Your task to perform on an android device: open app "Move to iOS" Image 0: 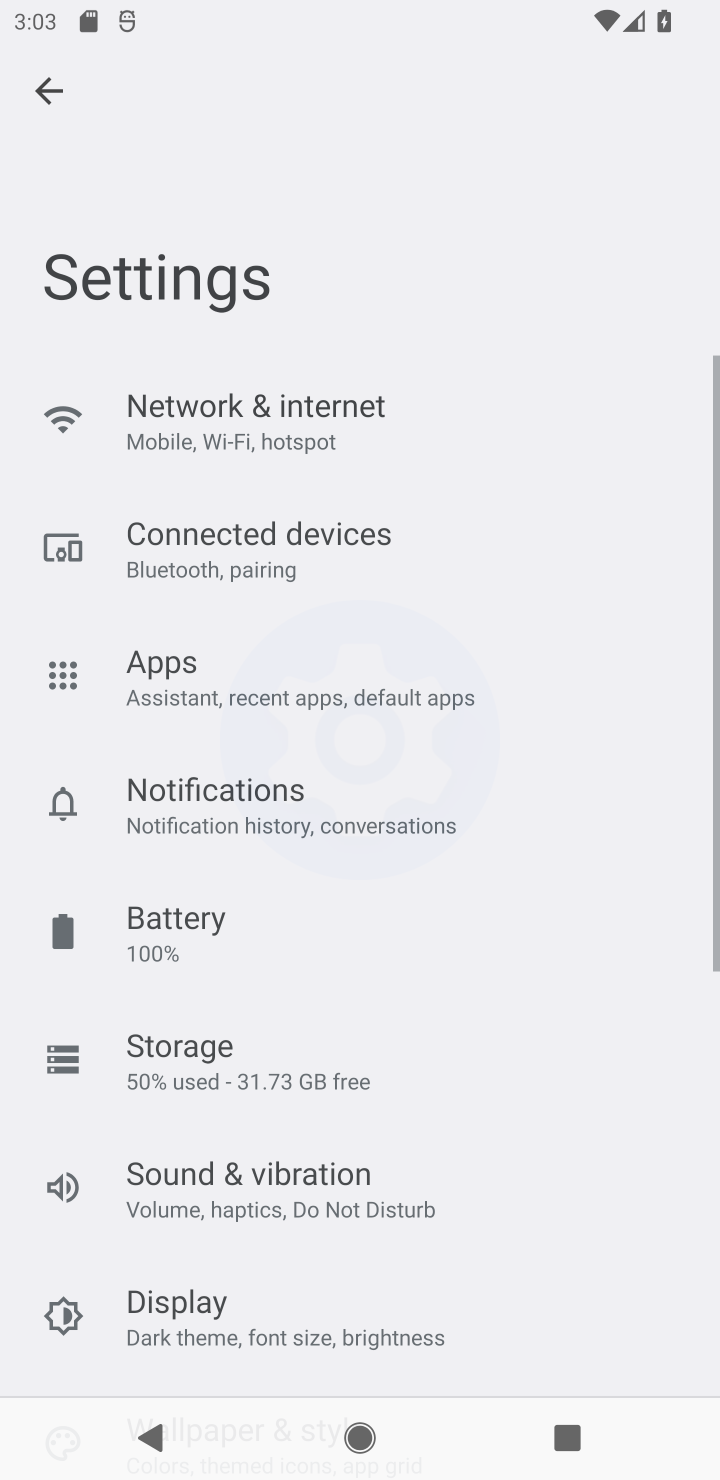
Step 0: press home button
Your task to perform on an android device: open app "Move to iOS" Image 1: 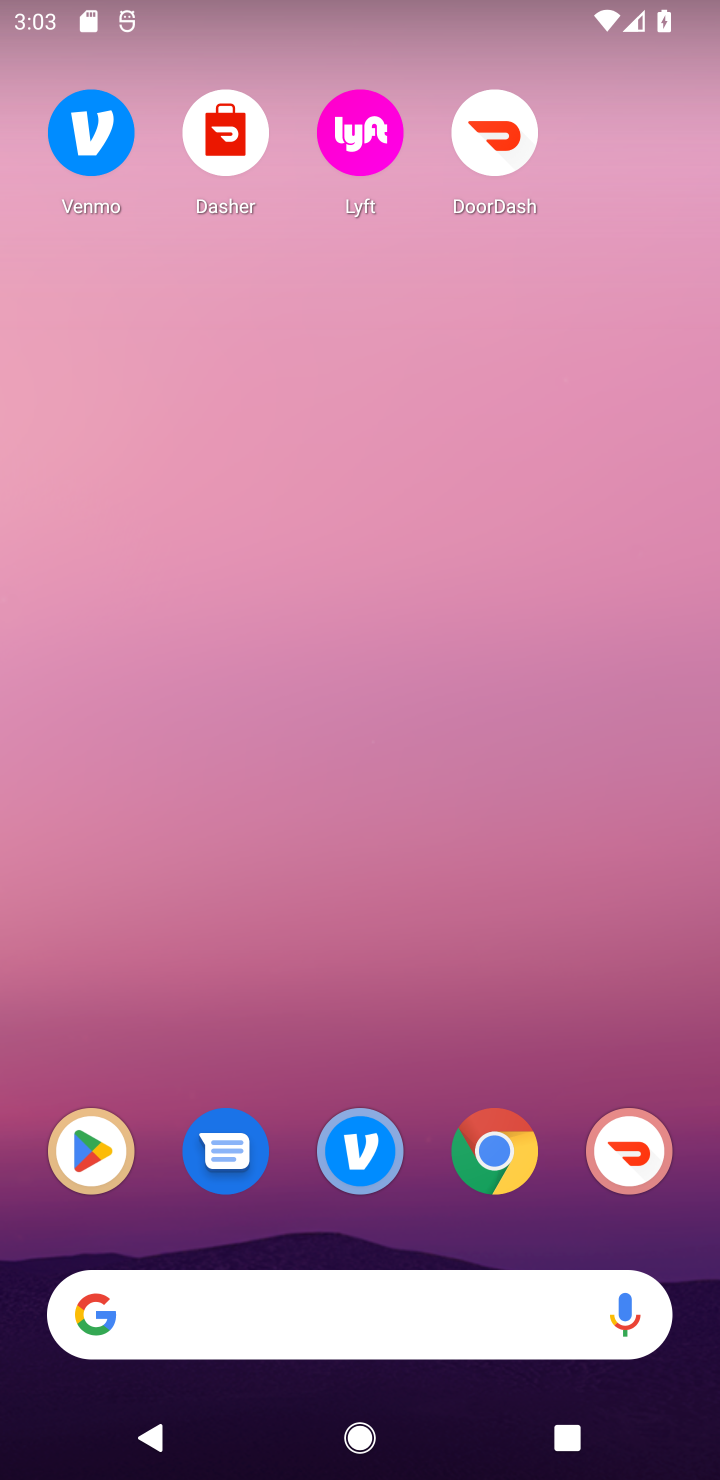
Step 1: drag from (393, 1222) to (393, 263)
Your task to perform on an android device: open app "Move to iOS" Image 2: 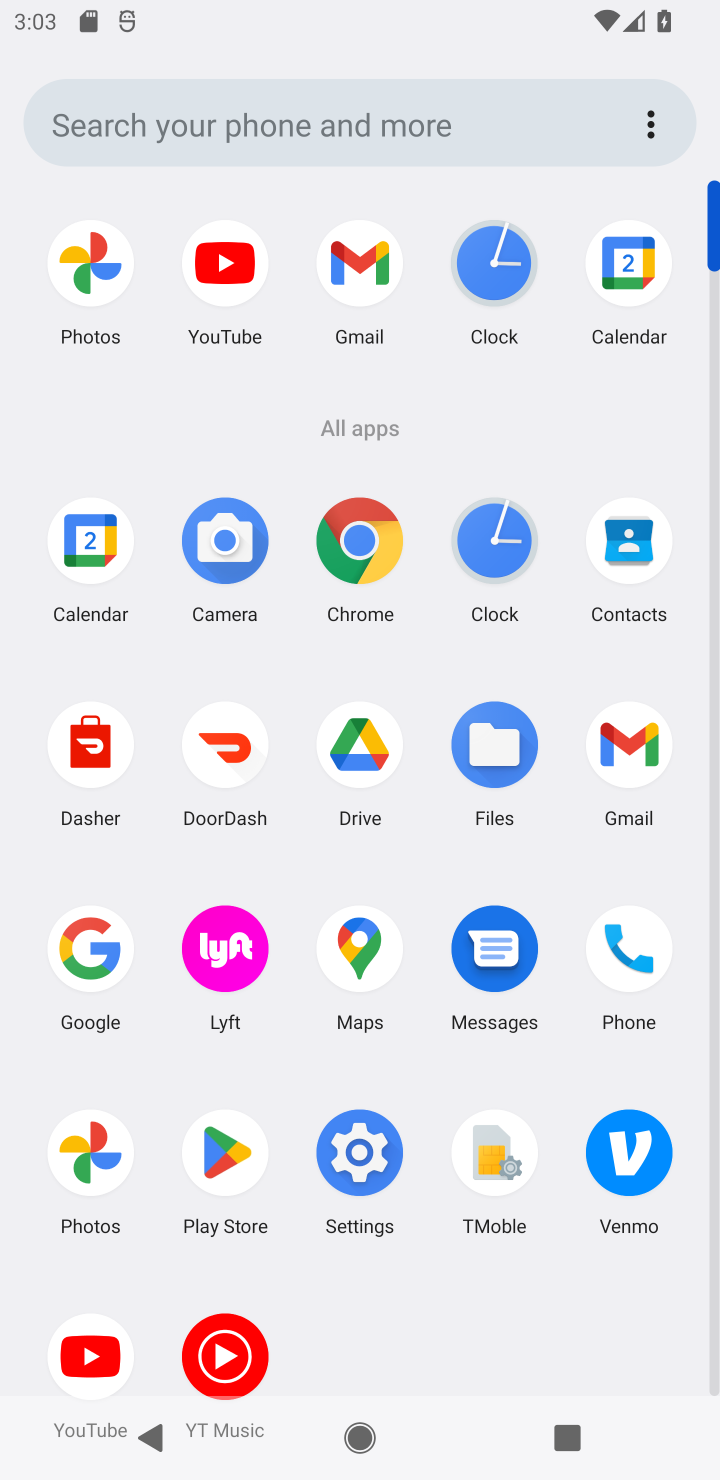
Step 2: click (205, 1173)
Your task to perform on an android device: open app "Move to iOS" Image 3: 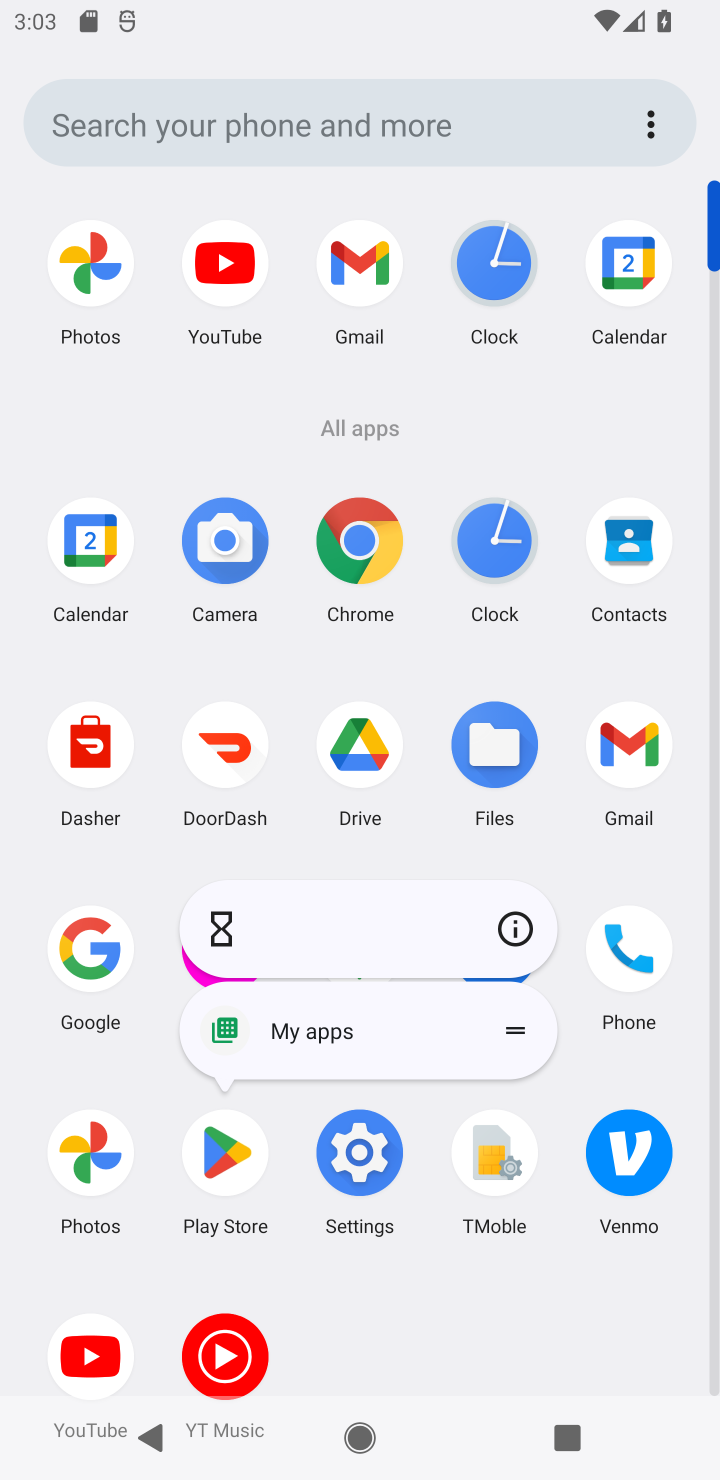
Step 3: click (223, 1188)
Your task to perform on an android device: open app "Move to iOS" Image 4: 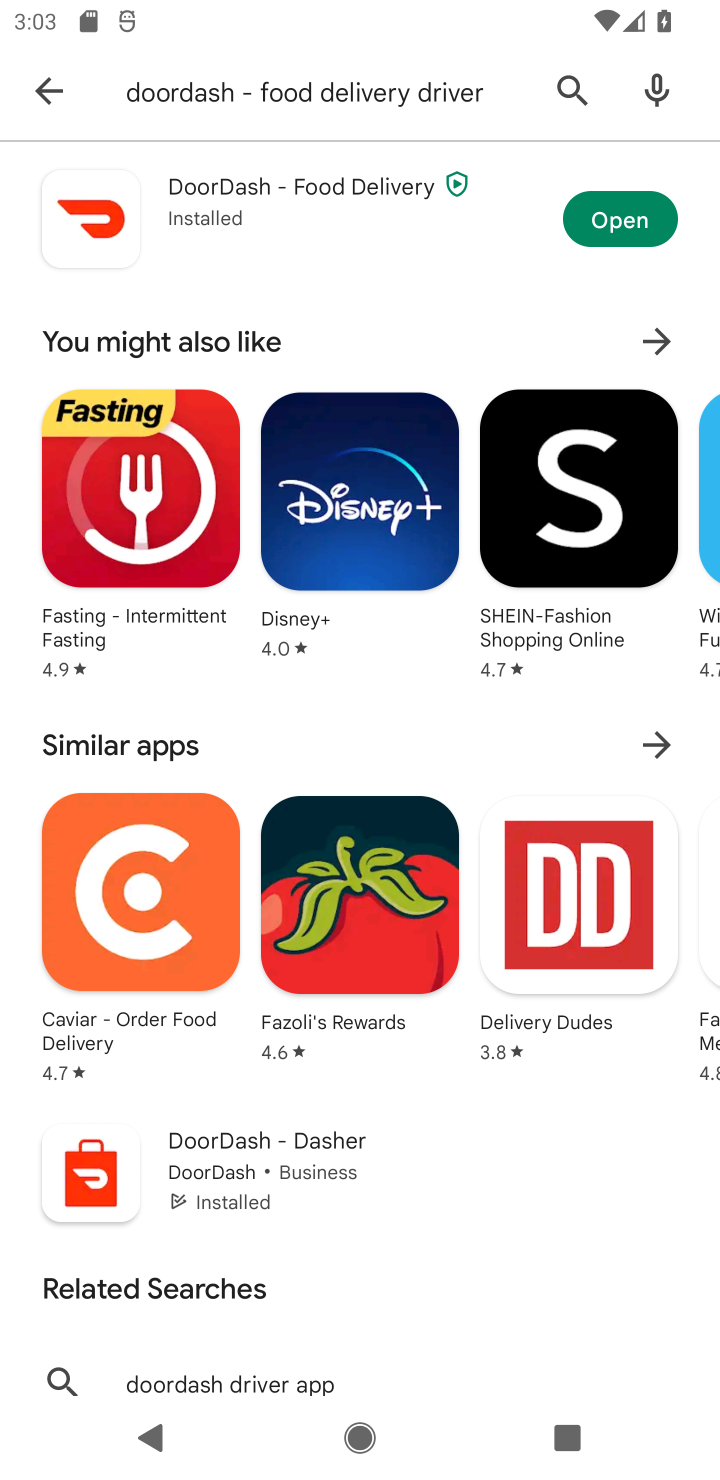
Step 4: click (34, 99)
Your task to perform on an android device: open app "Move to iOS" Image 5: 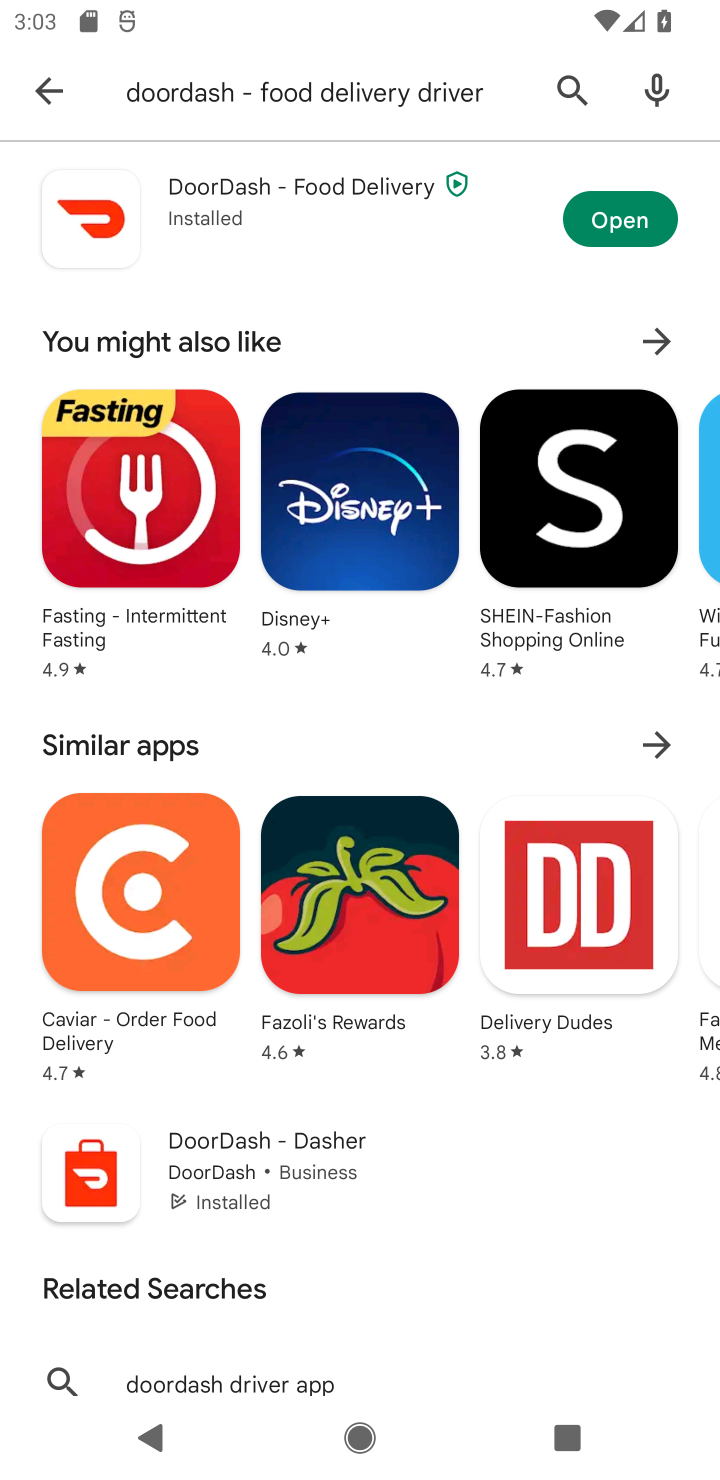
Step 5: click (54, 96)
Your task to perform on an android device: open app "Move to iOS" Image 6: 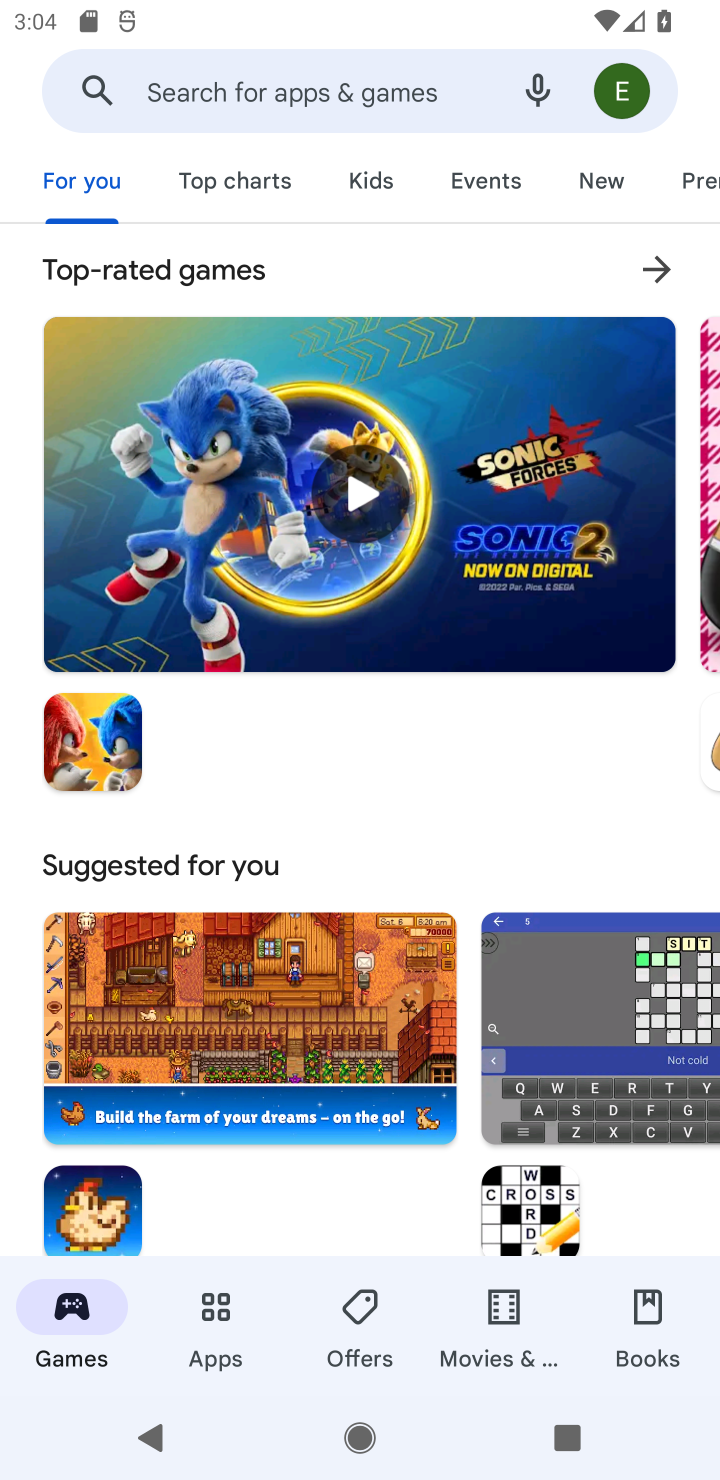
Step 6: click (258, 91)
Your task to perform on an android device: open app "Move to iOS" Image 7: 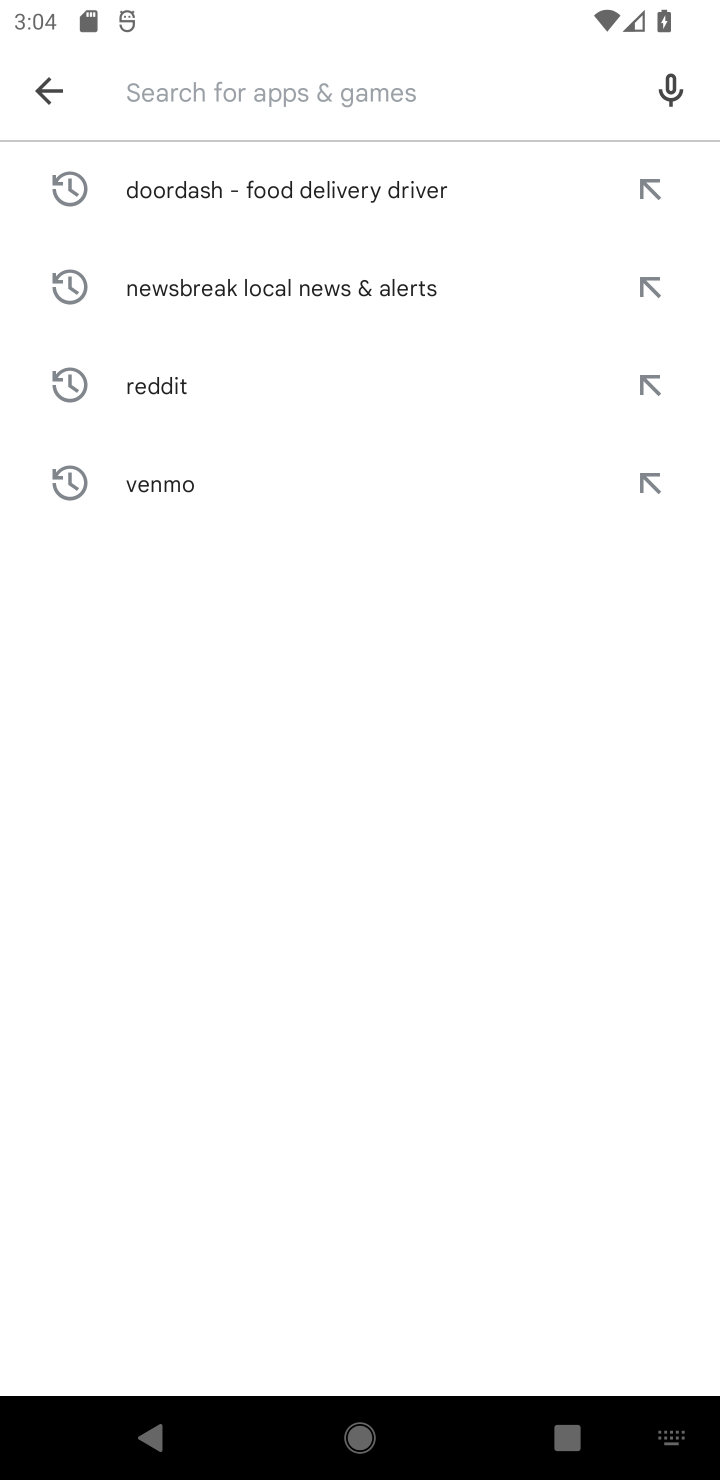
Step 7: click (225, 78)
Your task to perform on an android device: open app "Move to iOS" Image 8: 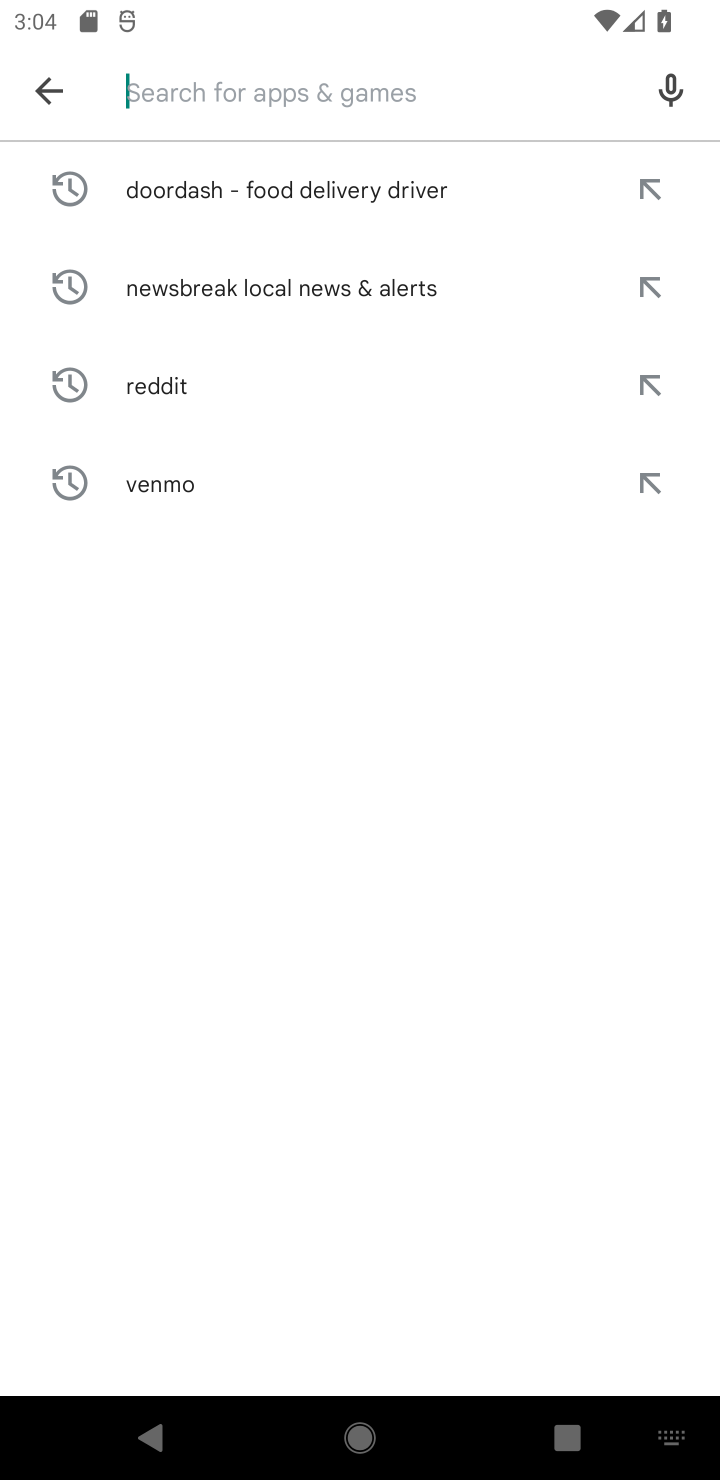
Step 8: type "Move to iOS"
Your task to perform on an android device: open app "Move to iOS" Image 9: 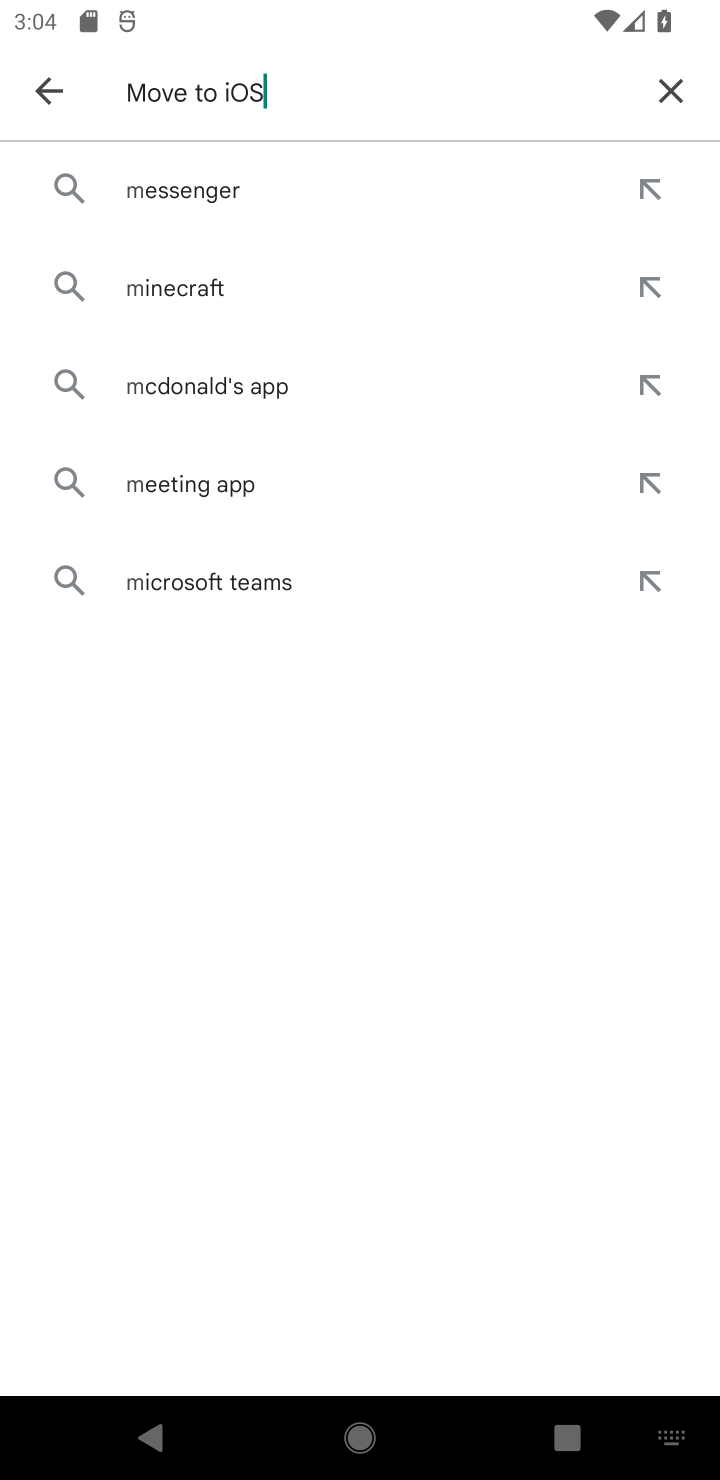
Step 9: type ""
Your task to perform on an android device: open app "Move to iOS" Image 10: 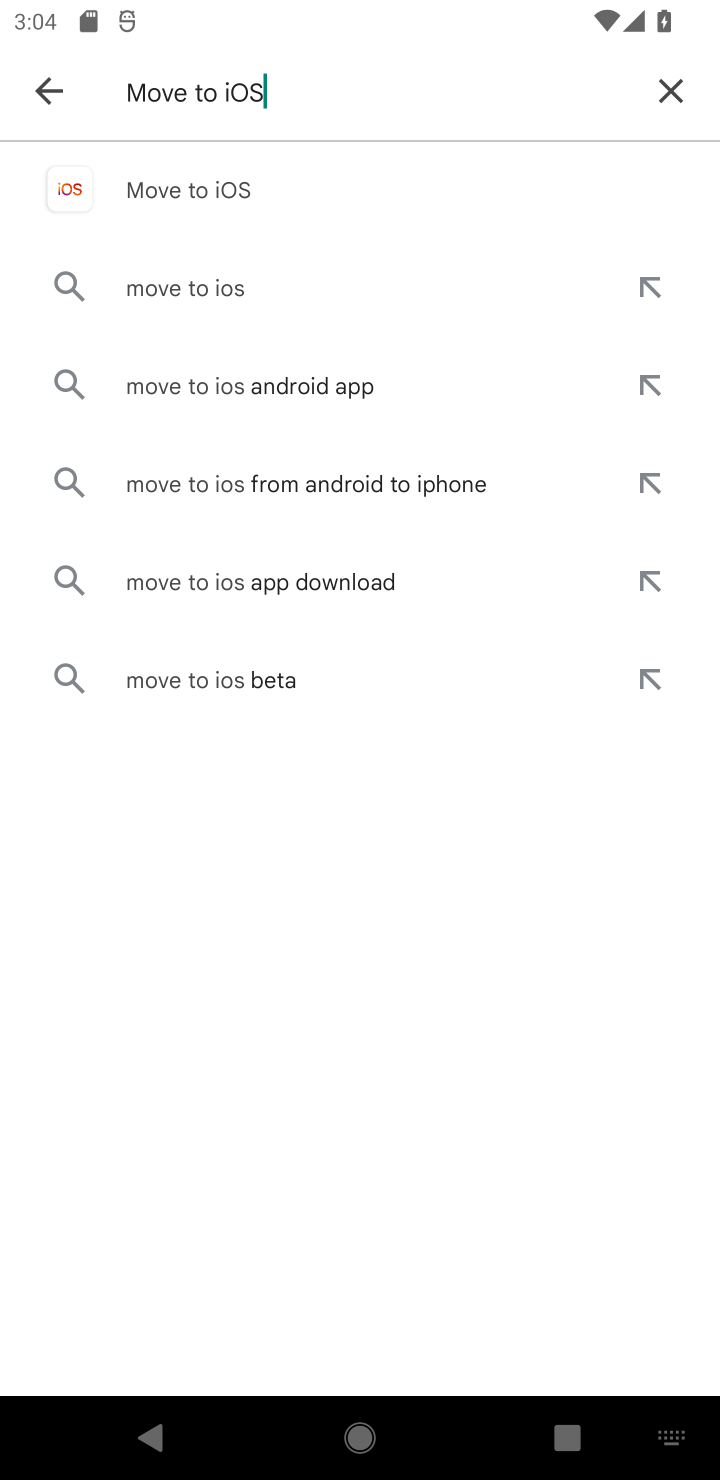
Step 10: click (196, 203)
Your task to perform on an android device: open app "Move to iOS" Image 11: 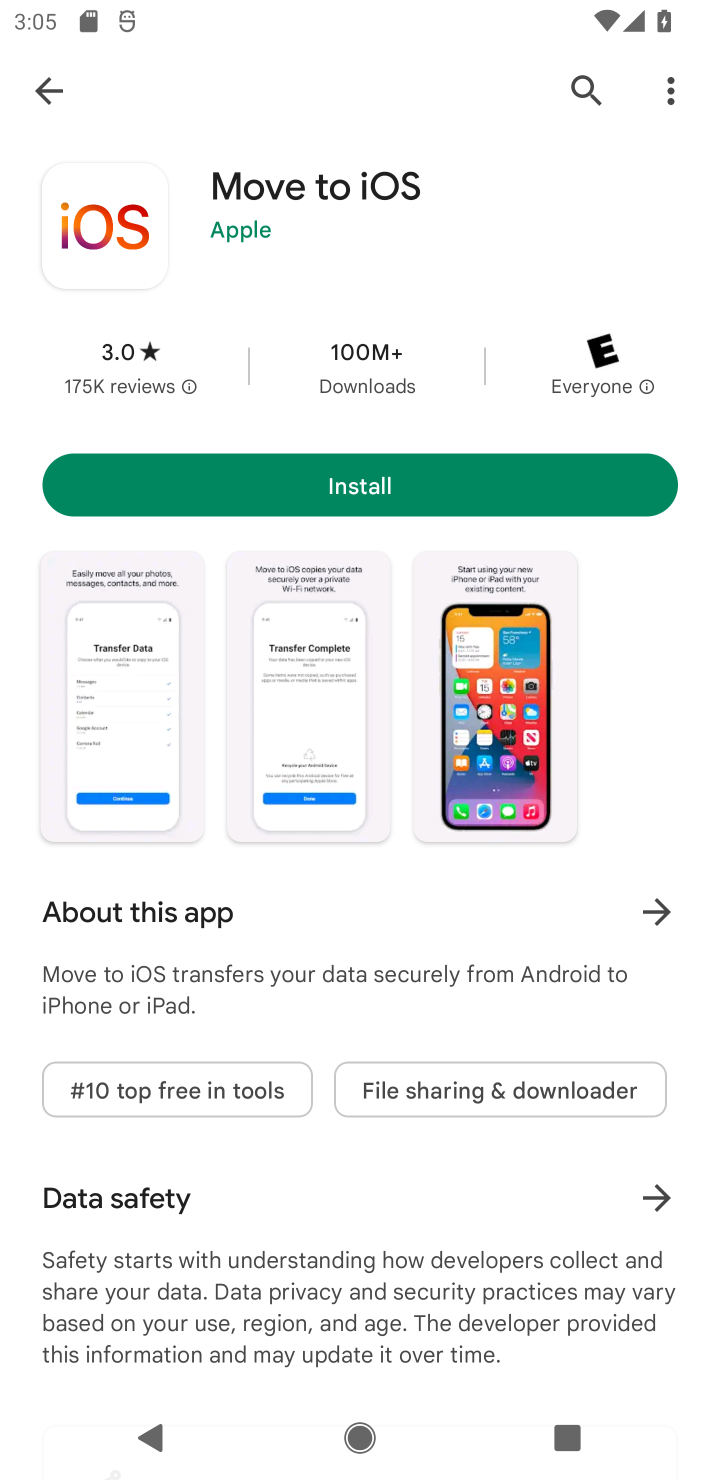
Step 11: task complete